Your task to perform on an android device: move an email to a new category in the gmail app Image 0: 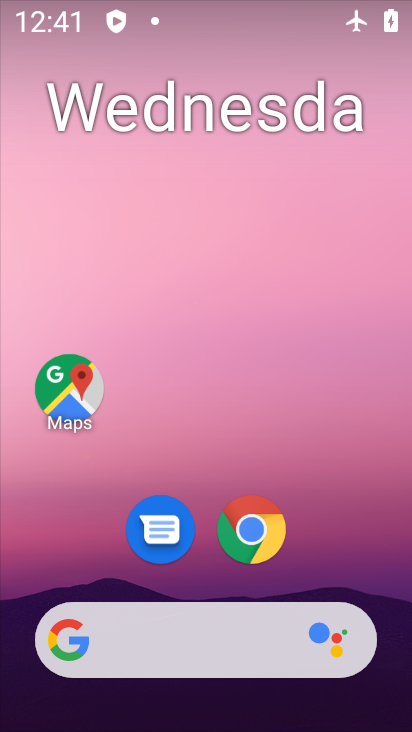
Step 0: drag from (222, 721) to (214, 118)
Your task to perform on an android device: move an email to a new category in the gmail app Image 1: 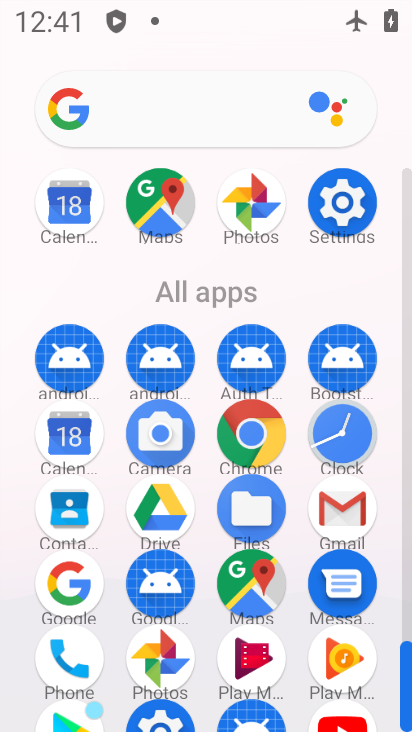
Step 1: click (340, 512)
Your task to perform on an android device: move an email to a new category in the gmail app Image 2: 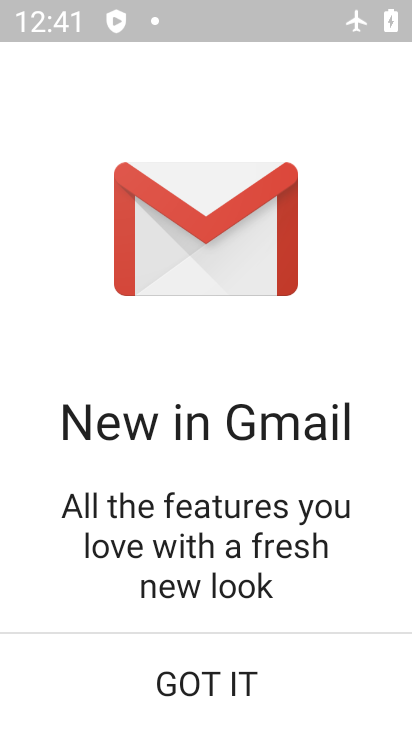
Step 2: click (209, 675)
Your task to perform on an android device: move an email to a new category in the gmail app Image 3: 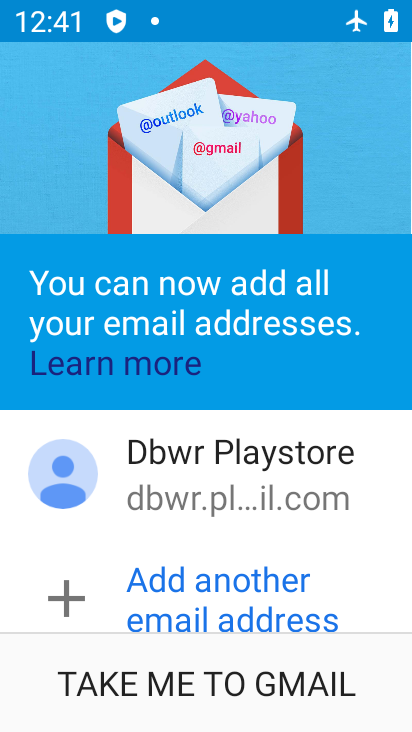
Step 3: click (224, 680)
Your task to perform on an android device: move an email to a new category in the gmail app Image 4: 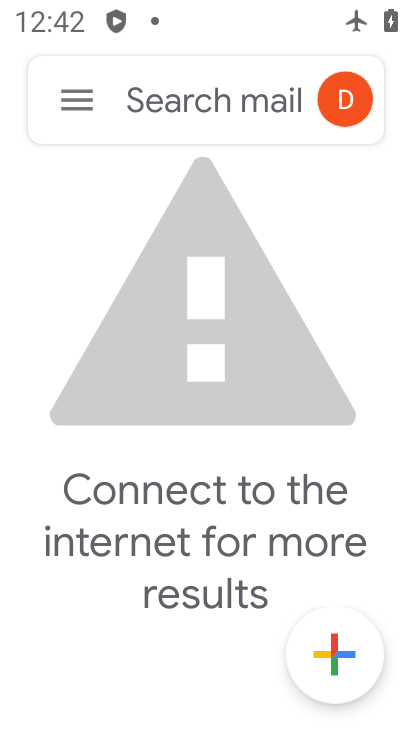
Step 4: task complete